Your task to perform on an android device: Do I have any events today? Image 0: 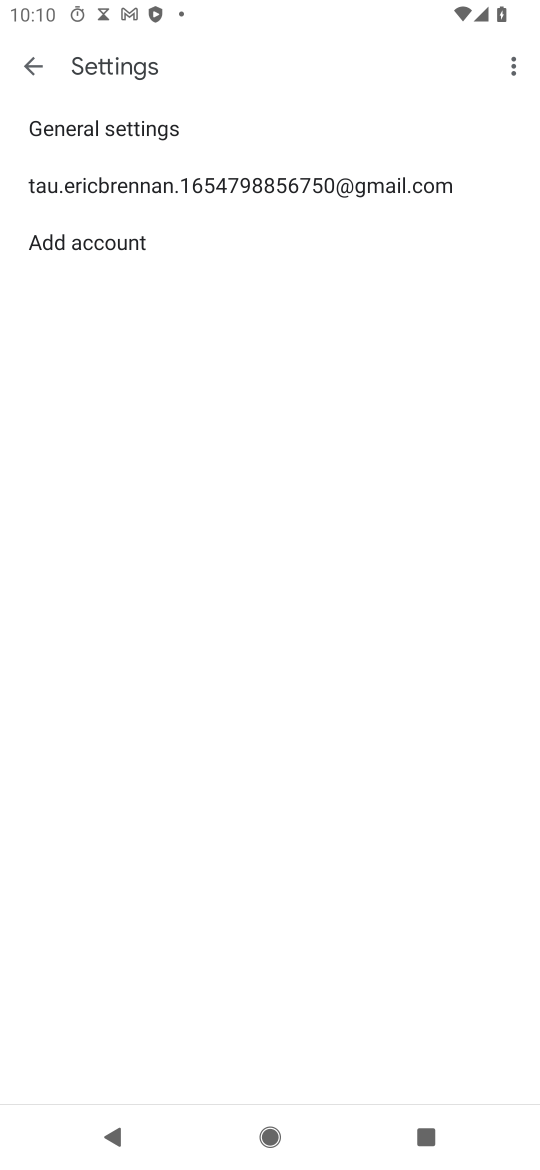
Step 0: press back button
Your task to perform on an android device: Do I have any events today? Image 1: 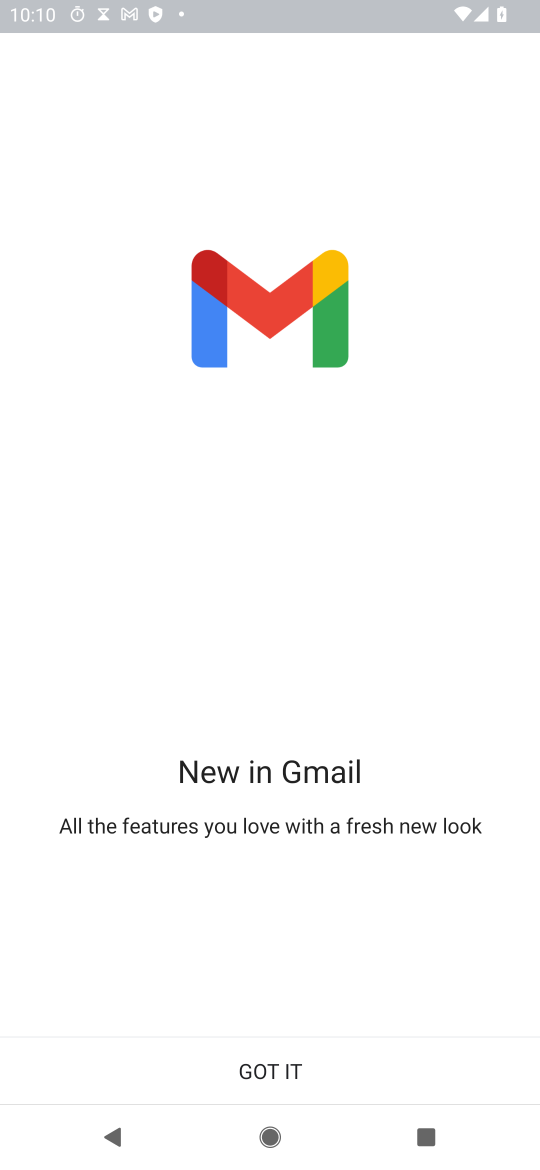
Step 1: press home button
Your task to perform on an android device: Do I have any events today? Image 2: 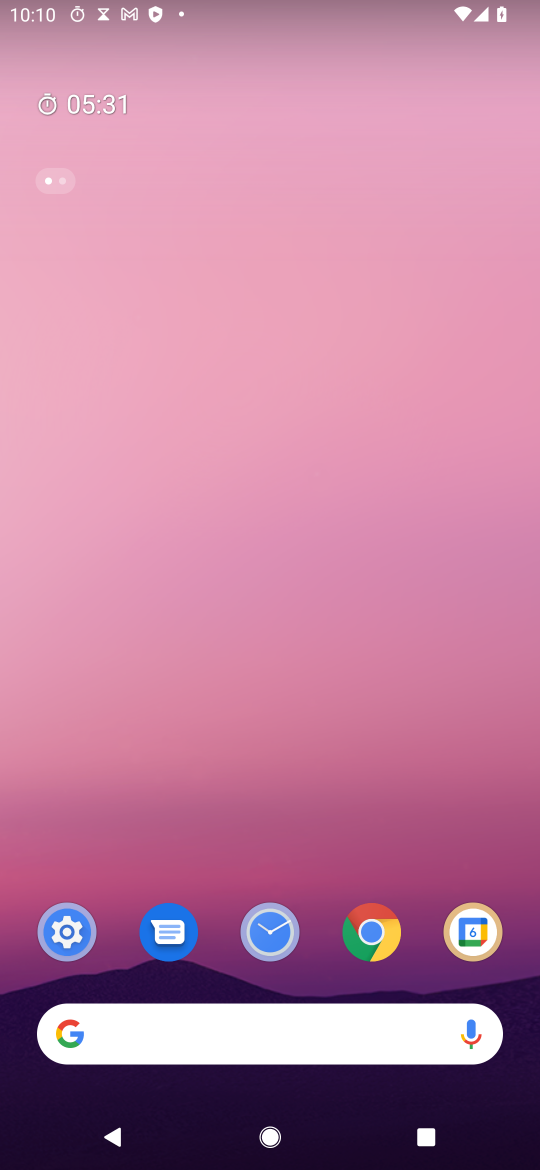
Step 2: click (481, 945)
Your task to perform on an android device: Do I have any events today? Image 3: 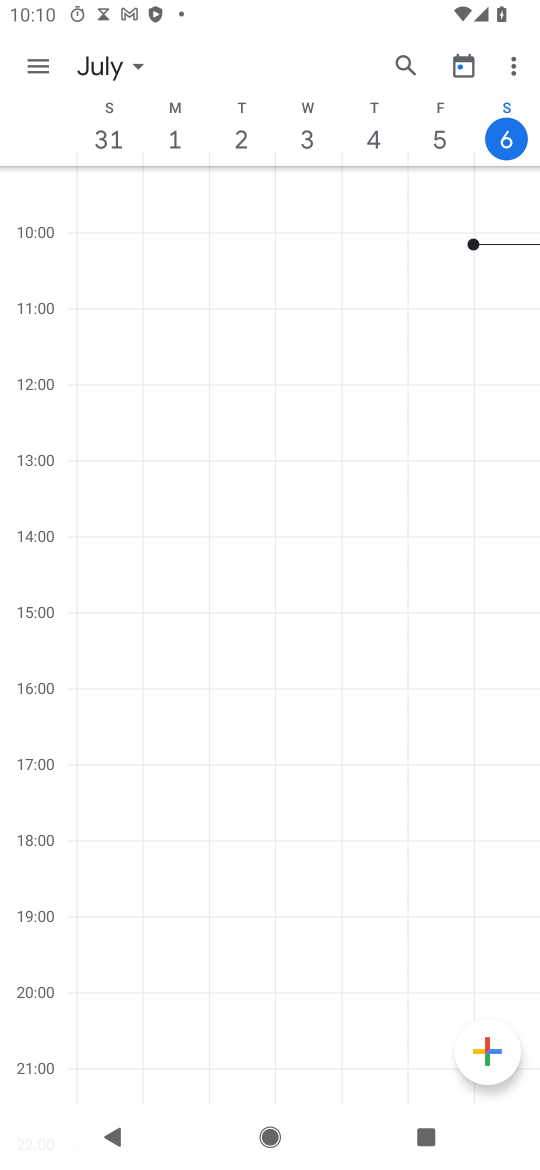
Step 3: click (32, 76)
Your task to perform on an android device: Do I have any events today? Image 4: 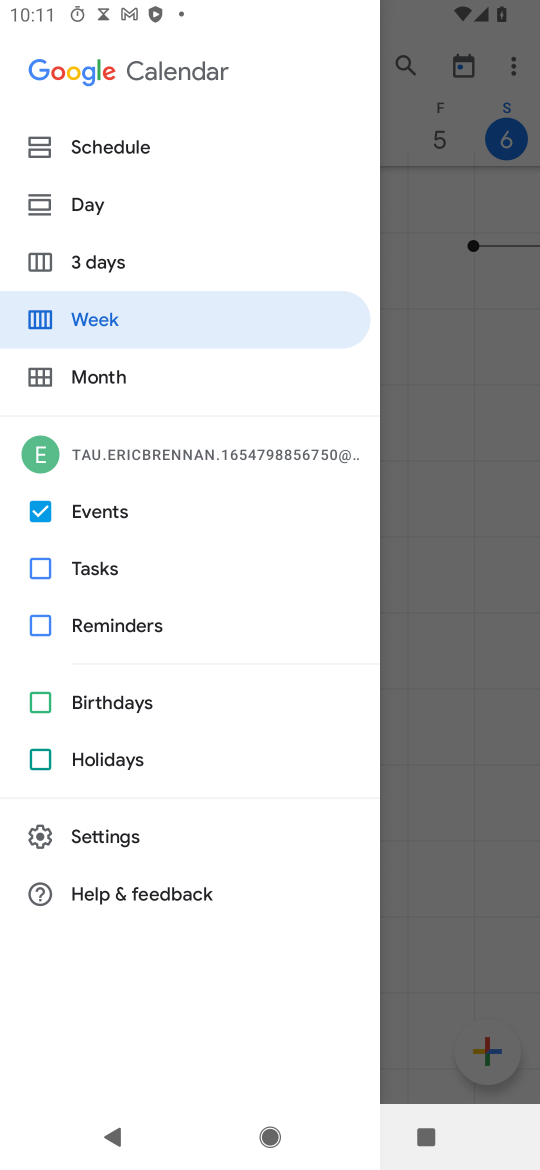
Step 4: click (86, 216)
Your task to perform on an android device: Do I have any events today? Image 5: 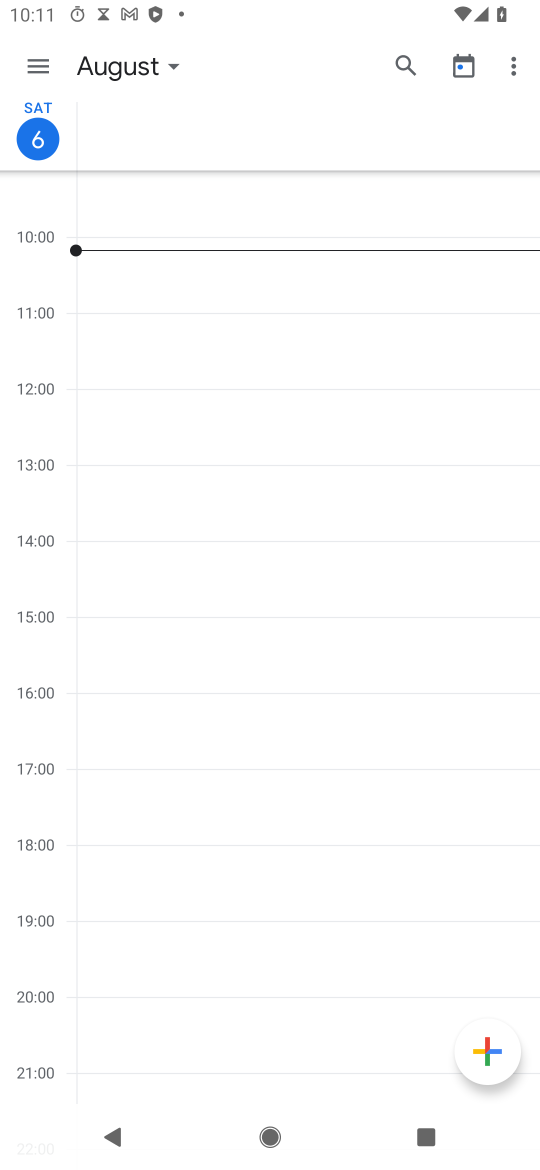
Step 5: task complete